Your task to perform on an android device: Open calendar and show me the third week of next month Image 0: 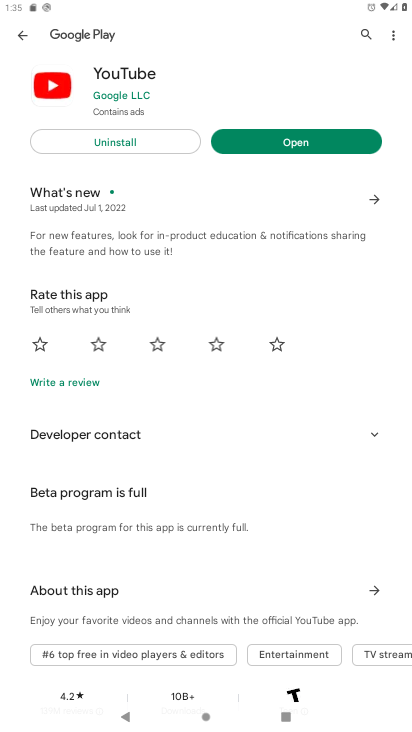
Step 0: press home button
Your task to perform on an android device: Open calendar and show me the third week of next month Image 1: 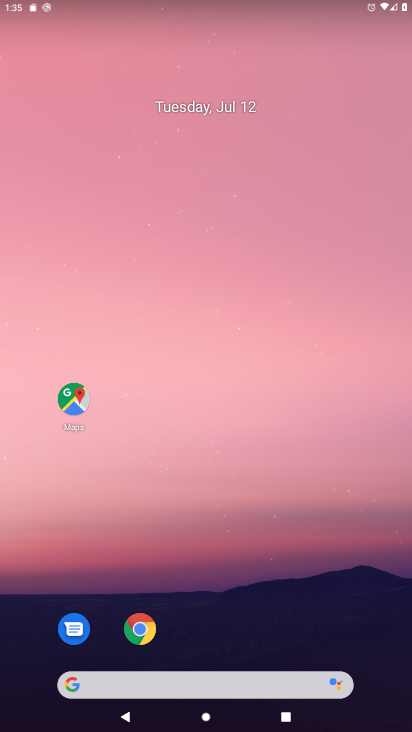
Step 1: drag from (292, 659) to (304, 105)
Your task to perform on an android device: Open calendar and show me the third week of next month Image 2: 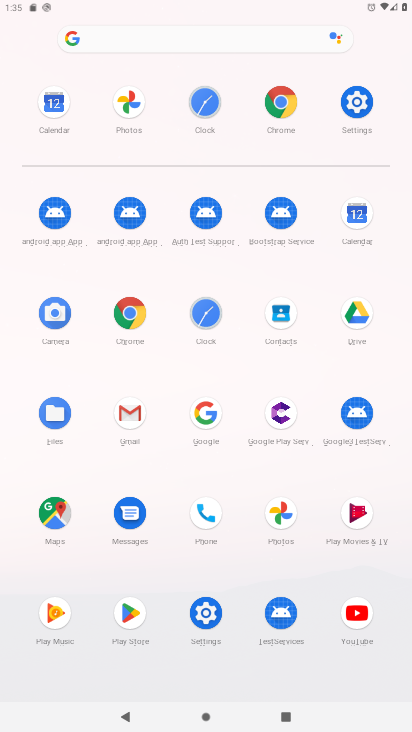
Step 2: click (352, 214)
Your task to perform on an android device: Open calendar and show me the third week of next month Image 3: 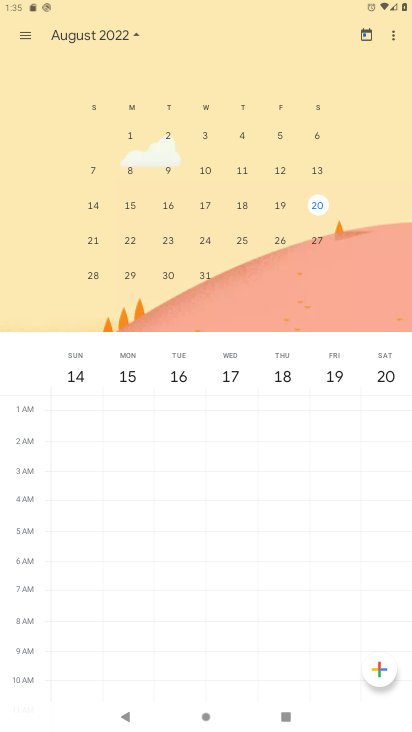
Step 3: drag from (109, 171) to (393, 196)
Your task to perform on an android device: Open calendar and show me the third week of next month Image 4: 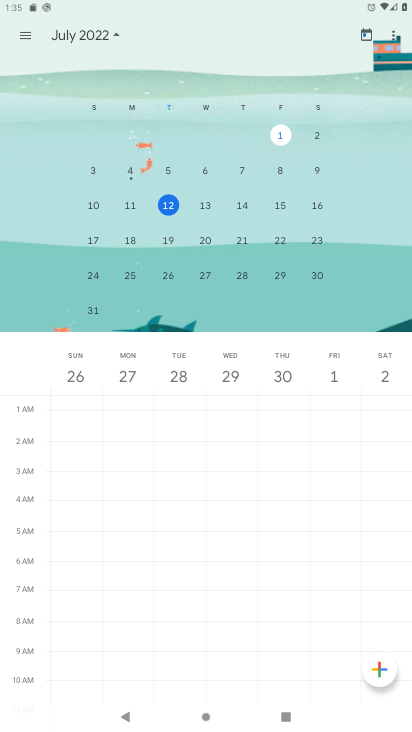
Step 4: drag from (314, 234) to (0, 227)
Your task to perform on an android device: Open calendar and show me the third week of next month Image 5: 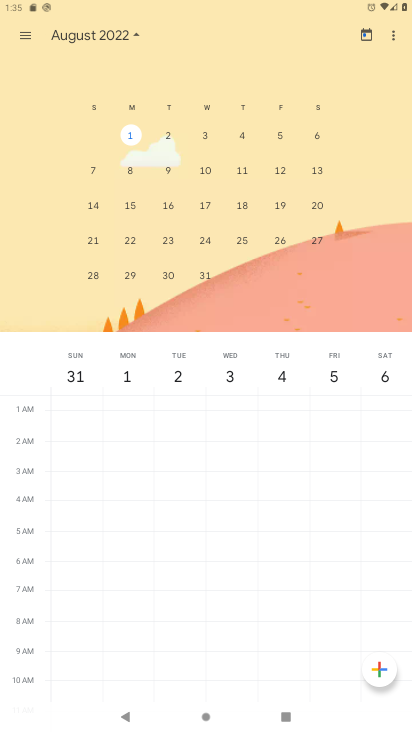
Step 5: click (207, 208)
Your task to perform on an android device: Open calendar and show me the third week of next month Image 6: 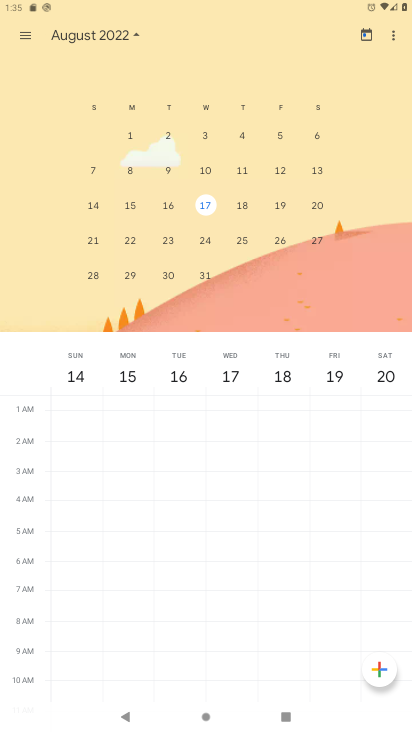
Step 6: task complete